Your task to perform on an android device: turn pop-ups off in chrome Image 0: 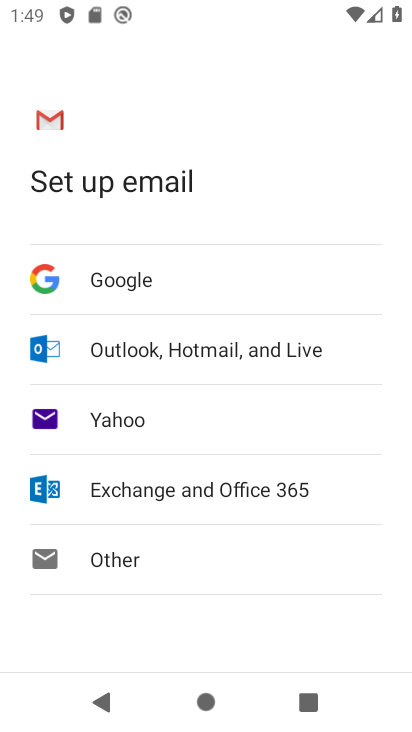
Step 0: press home button
Your task to perform on an android device: turn pop-ups off in chrome Image 1: 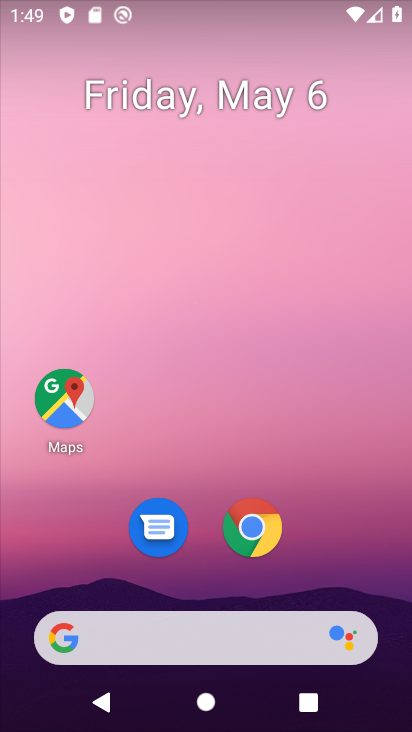
Step 1: drag from (334, 559) to (341, 124)
Your task to perform on an android device: turn pop-ups off in chrome Image 2: 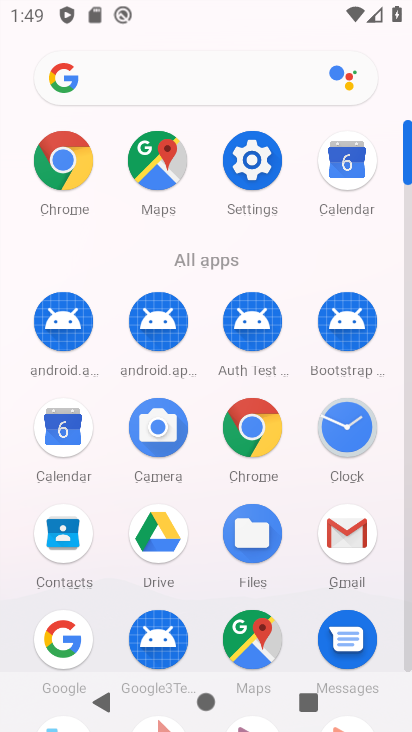
Step 2: click (256, 428)
Your task to perform on an android device: turn pop-ups off in chrome Image 3: 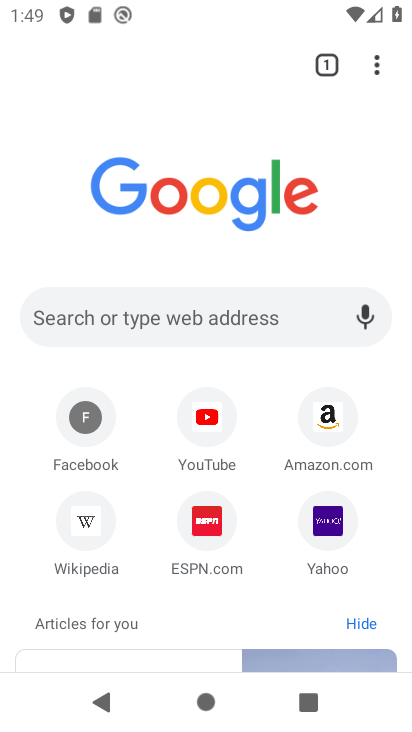
Step 3: drag from (377, 61) to (166, 557)
Your task to perform on an android device: turn pop-ups off in chrome Image 4: 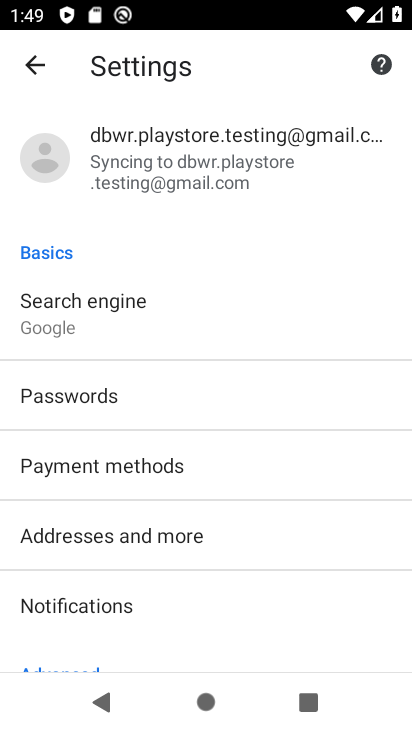
Step 4: drag from (224, 621) to (286, 179)
Your task to perform on an android device: turn pop-ups off in chrome Image 5: 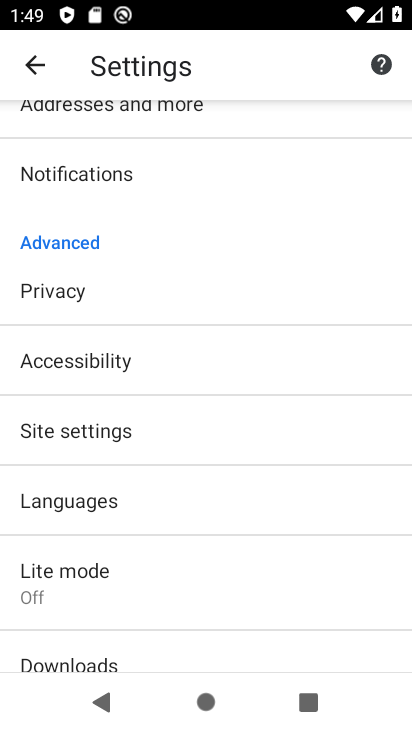
Step 5: click (175, 432)
Your task to perform on an android device: turn pop-ups off in chrome Image 6: 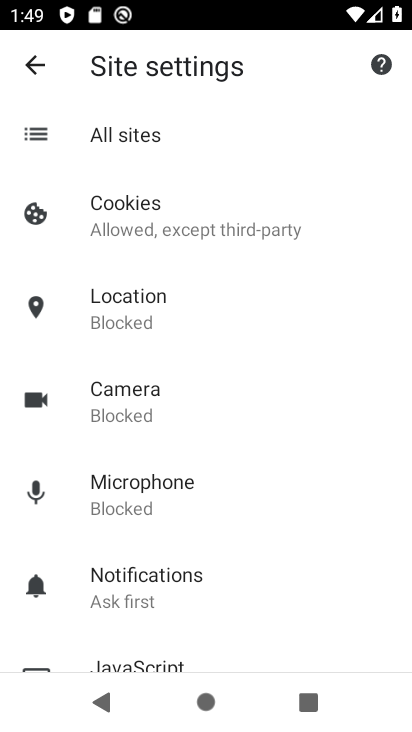
Step 6: drag from (233, 518) to (278, 241)
Your task to perform on an android device: turn pop-ups off in chrome Image 7: 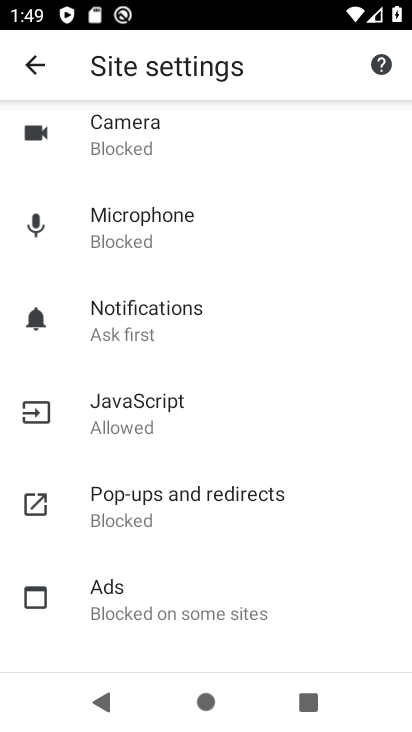
Step 7: click (176, 487)
Your task to perform on an android device: turn pop-ups off in chrome Image 8: 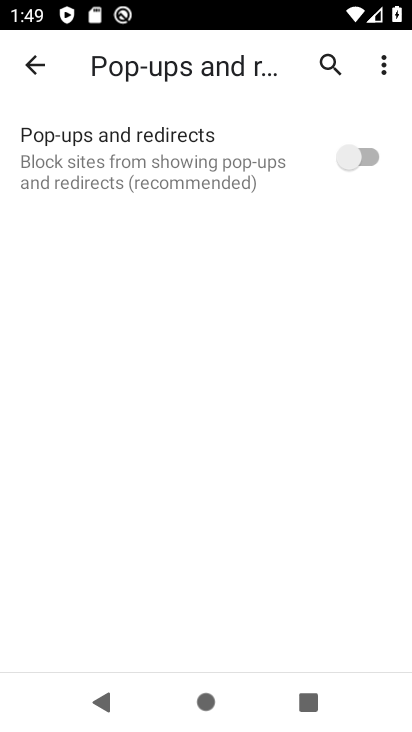
Step 8: task complete